Your task to perform on an android device: turn on showing notifications on the lock screen Image 0: 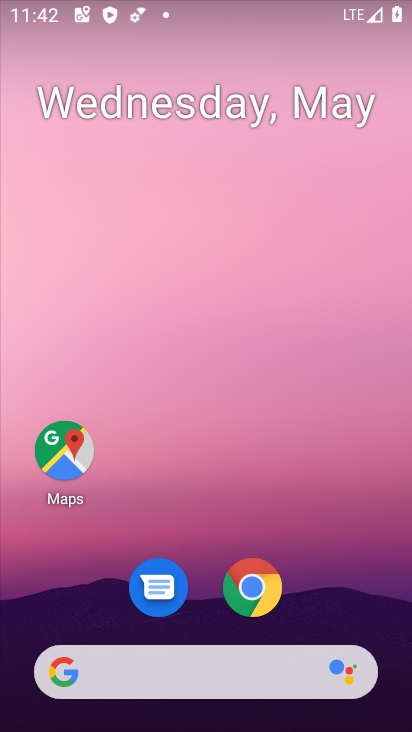
Step 0: drag from (330, 623) to (249, 1)
Your task to perform on an android device: turn on showing notifications on the lock screen Image 1: 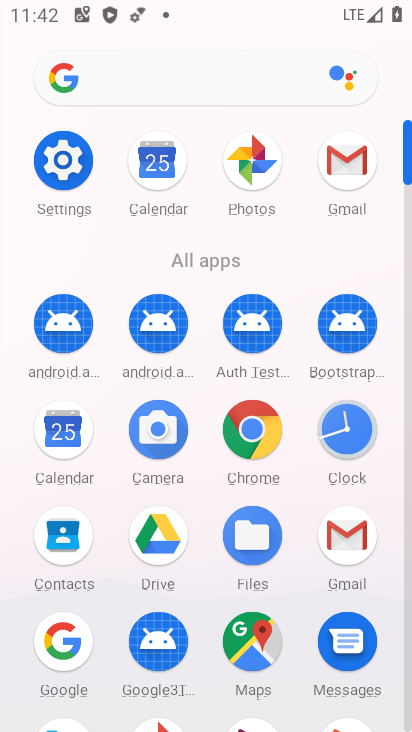
Step 1: click (67, 156)
Your task to perform on an android device: turn on showing notifications on the lock screen Image 2: 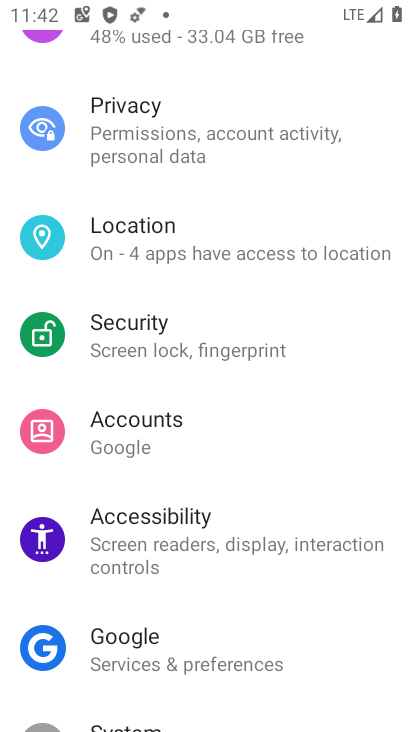
Step 2: drag from (205, 689) to (161, 726)
Your task to perform on an android device: turn on showing notifications on the lock screen Image 3: 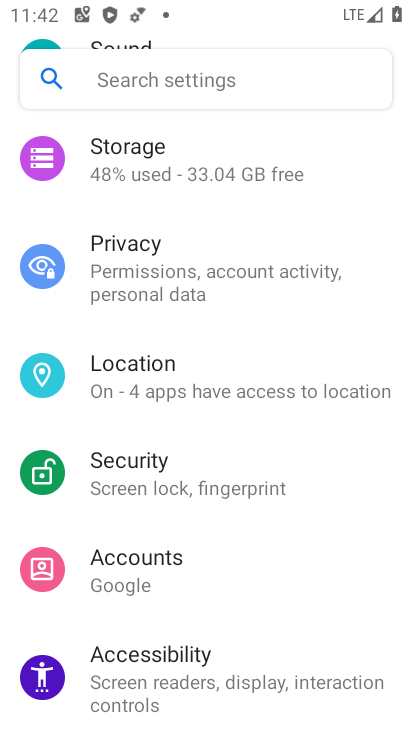
Step 3: drag from (143, 126) to (116, 680)
Your task to perform on an android device: turn on showing notifications on the lock screen Image 4: 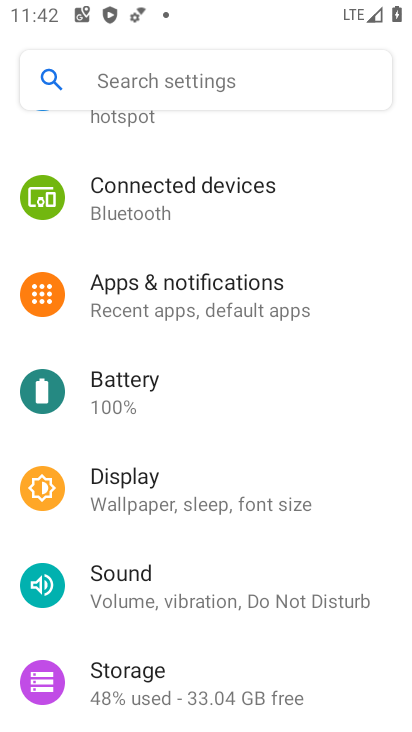
Step 4: click (142, 304)
Your task to perform on an android device: turn on showing notifications on the lock screen Image 5: 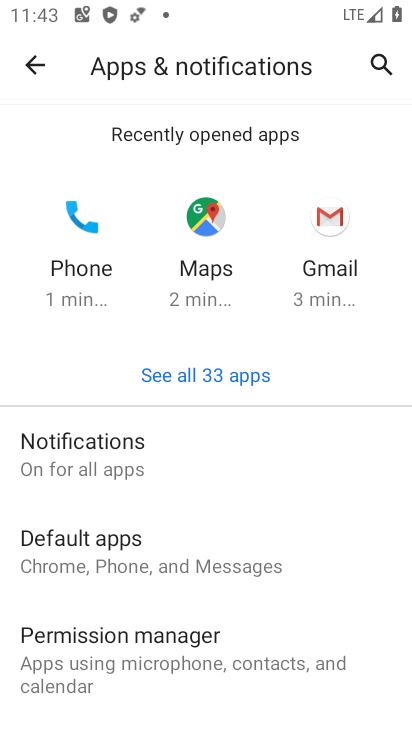
Step 5: drag from (147, 633) to (141, 318)
Your task to perform on an android device: turn on showing notifications on the lock screen Image 6: 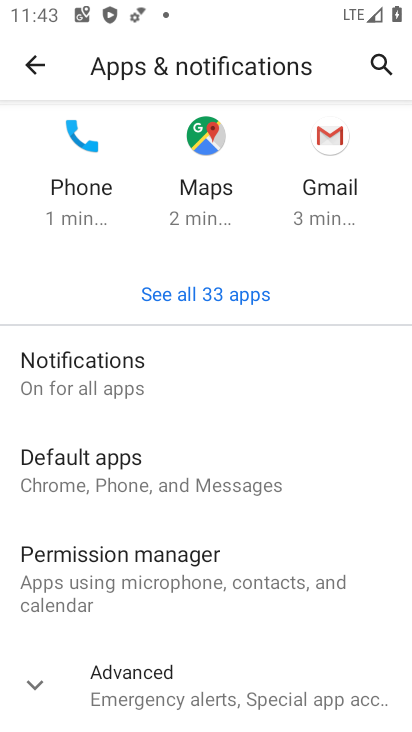
Step 6: click (108, 347)
Your task to perform on an android device: turn on showing notifications on the lock screen Image 7: 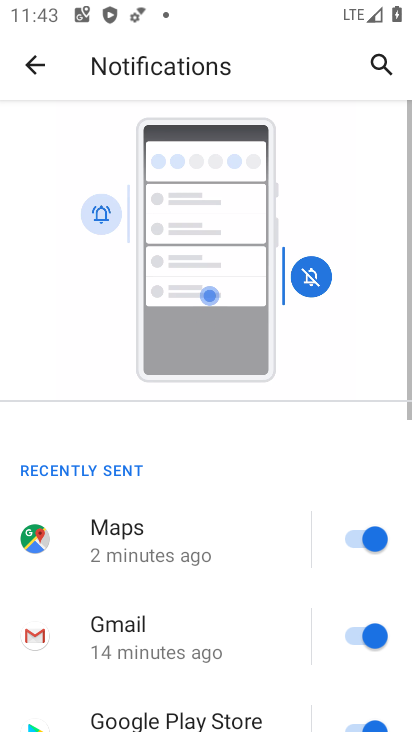
Step 7: drag from (137, 709) to (115, 146)
Your task to perform on an android device: turn on showing notifications on the lock screen Image 8: 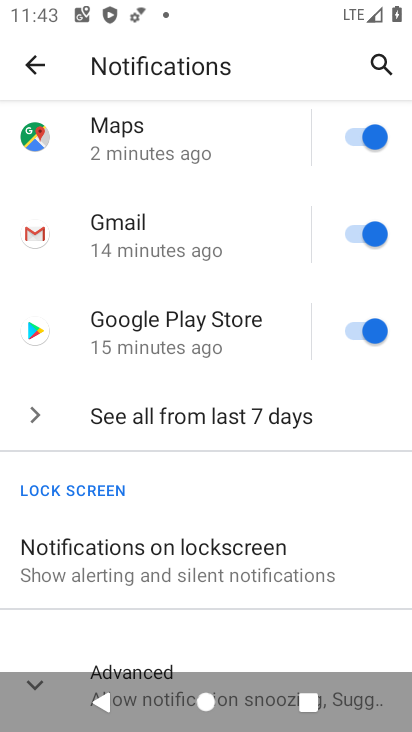
Step 8: click (132, 549)
Your task to perform on an android device: turn on showing notifications on the lock screen Image 9: 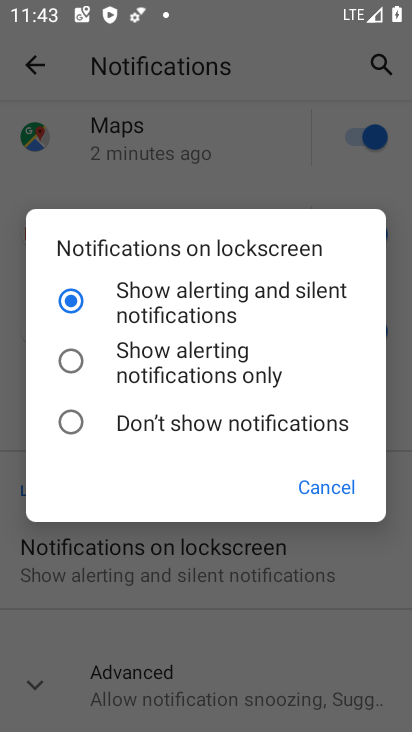
Step 9: task complete